Your task to perform on an android device: turn off airplane mode Image 0: 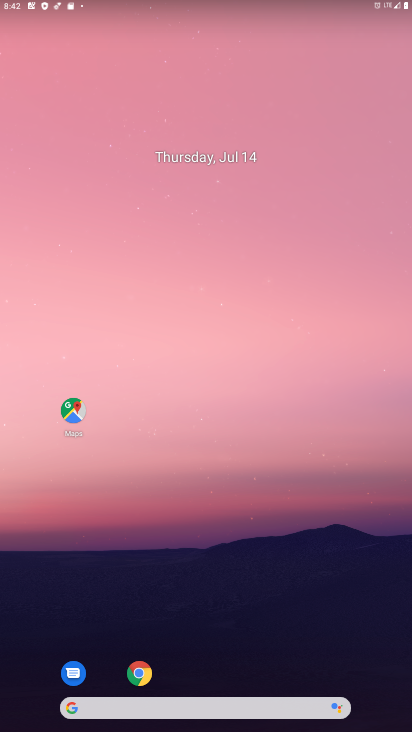
Step 0: drag from (184, 706) to (280, 121)
Your task to perform on an android device: turn off airplane mode Image 1: 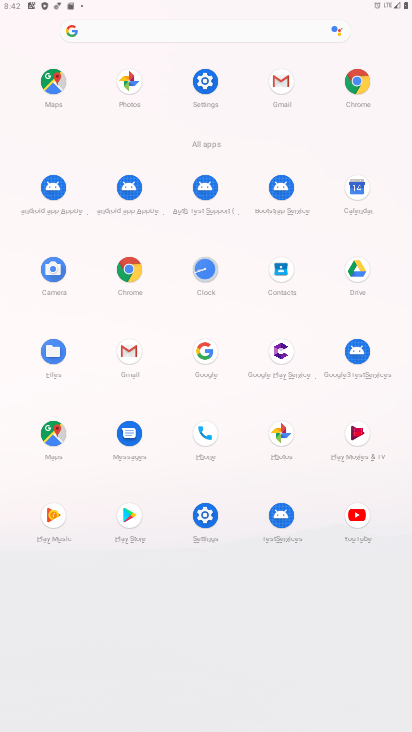
Step 1: click (203, 83)
Your task to perform on an android device: turn off airplane mode Image 2: 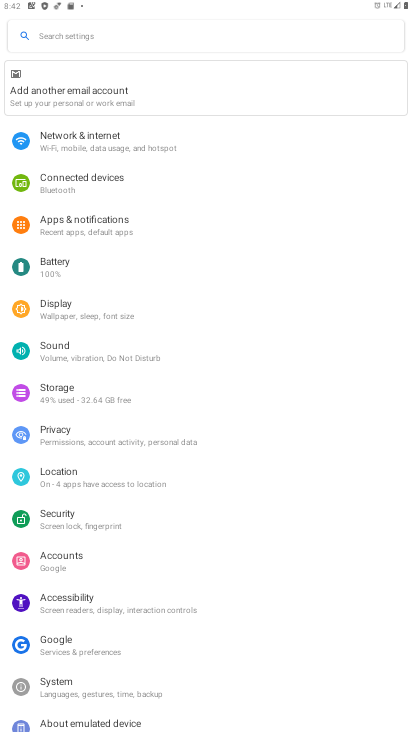
Step 2: click (141, 151)
Your task to perform on an android device: turn off airplane mode Image 3: 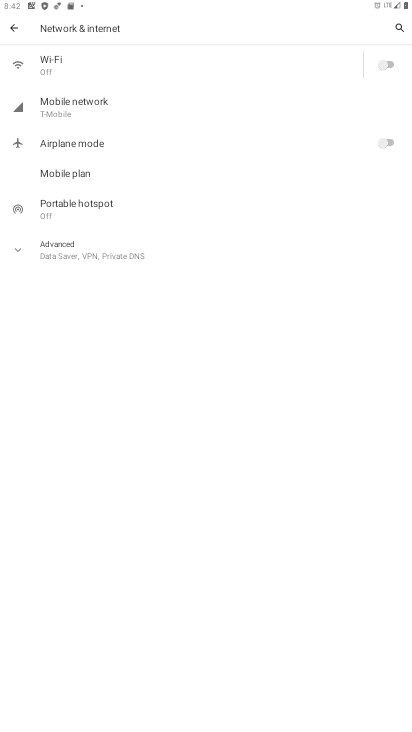
Step 3: task complete